Your task to perform on an android device: Go to sound settings Image 0: 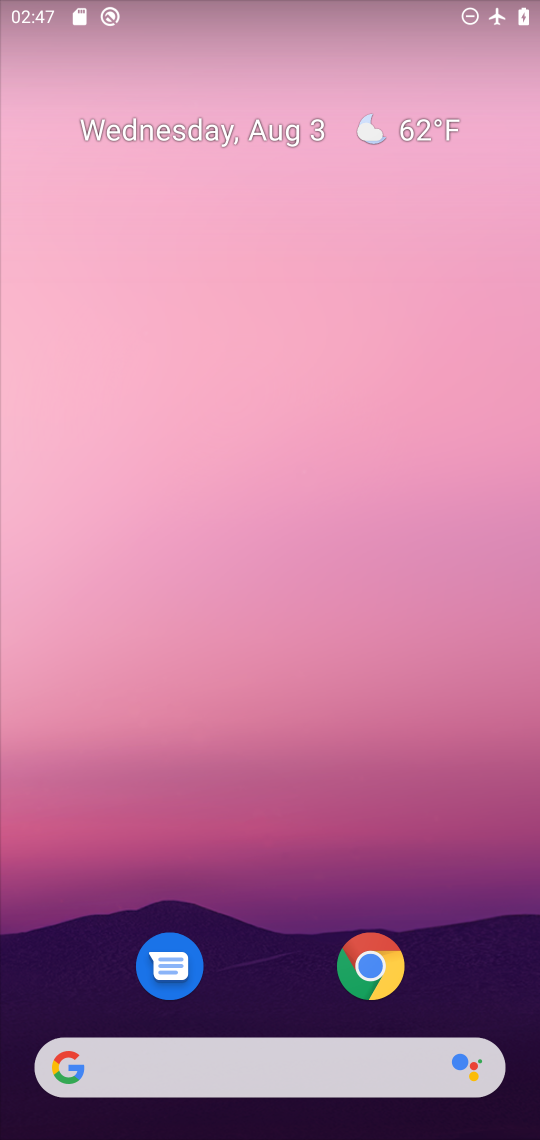
Step 0: drag from (247, 998) to (237, 240)
Your task to perform on an android device: Go to sound settings Image 1: 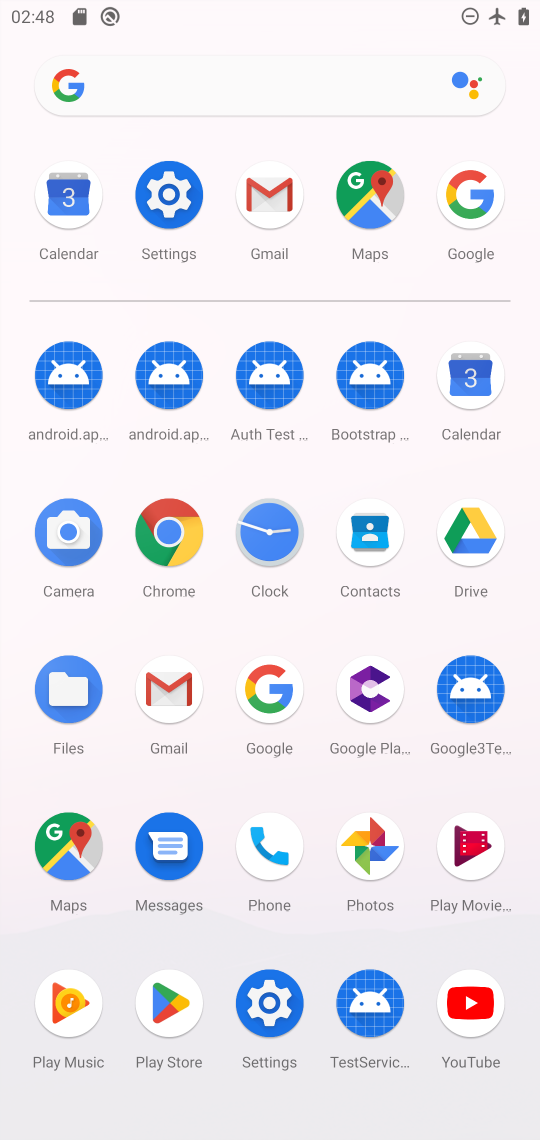
Step 1: click (178, 208)
Your task to perform on an android device: Go to sound settings Image 2: 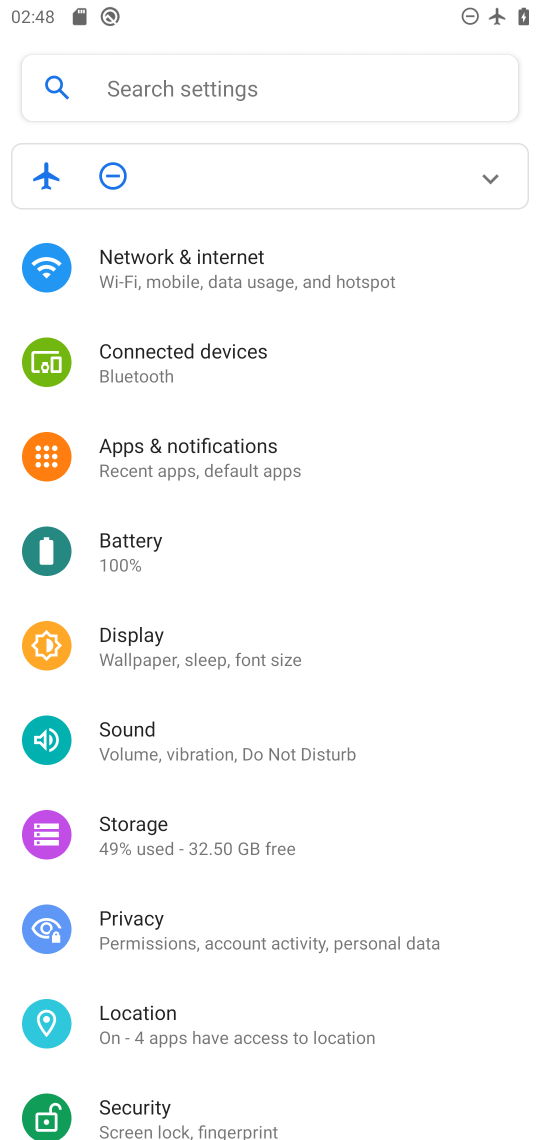
Step 2: click (227, 721)
Your task to perform on an android device: Go to sound settings Image 3: 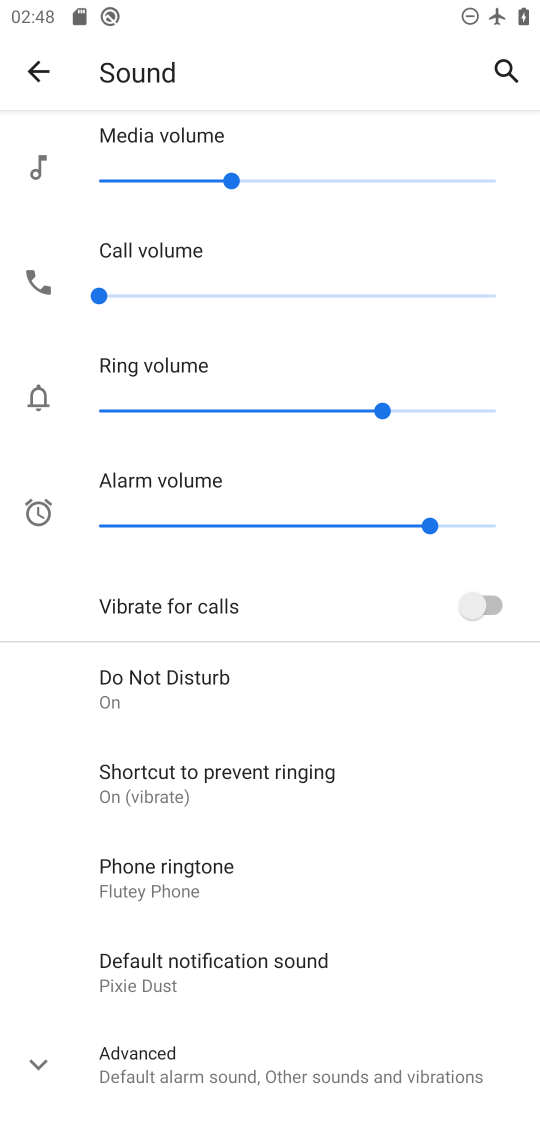
Step 3: task complete